Your task to perform on an android device: Open privacy settings Image 0: 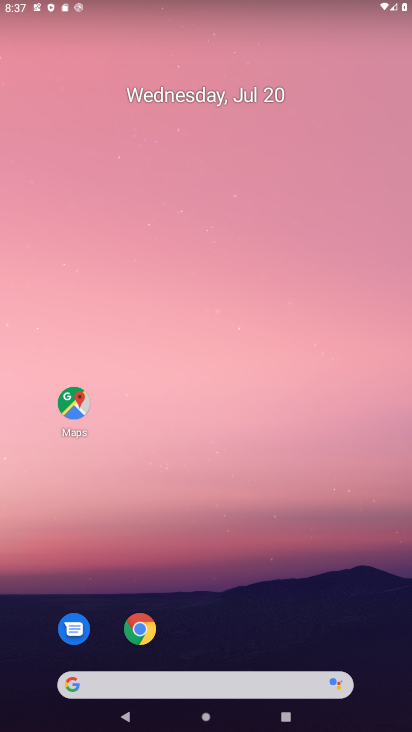
Step 0: click (234, 184)
Your task to perform on an android device: Open privacy settings Image 1: 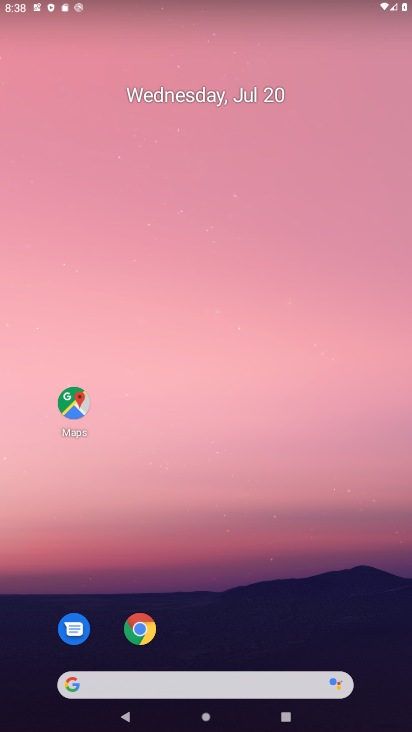
Step 1: drag from (234, 670) to (208, 217)
Your task to perform on an android device: Open privacy settings Image 2: 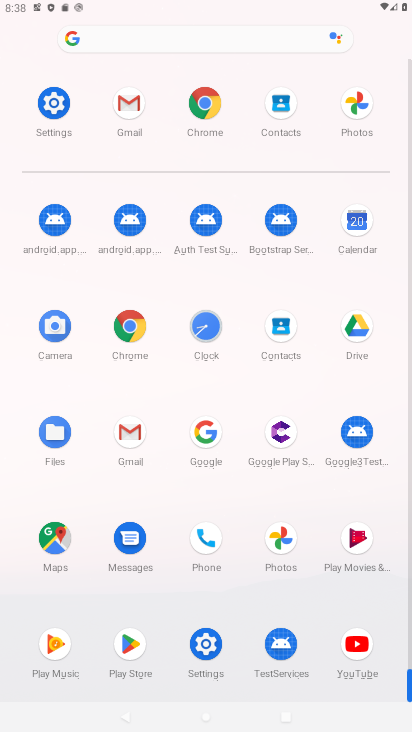
Step 2: click (58, 104)
Your task to perform on an android device: Open privacy settings Image 3: 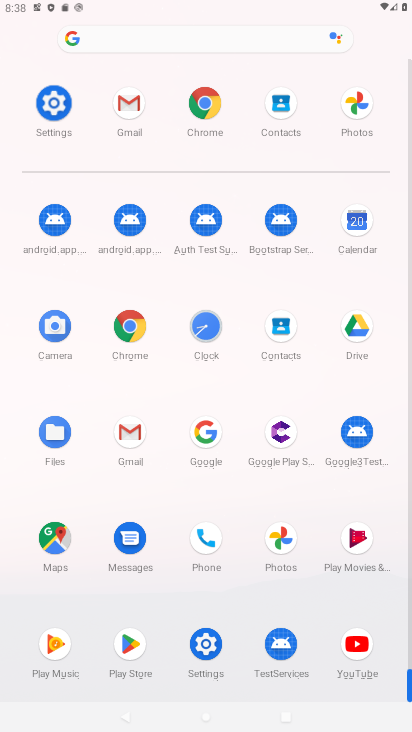
Step 3: click (59, 102)
Your task to perform on an android device: Open privacy settings Image 4: 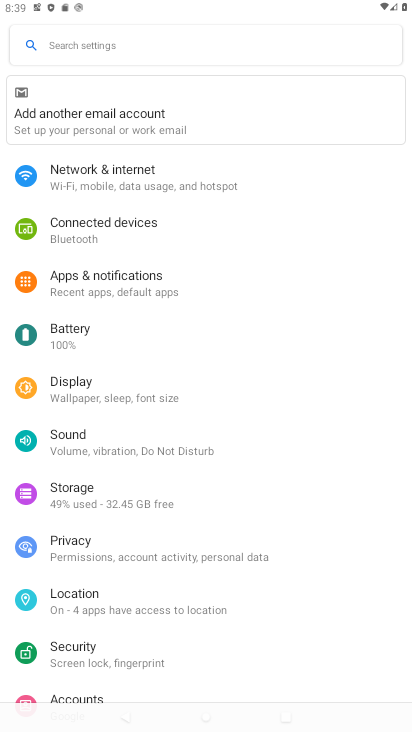
Step 4: drag from (114, 576) to (99, 343)
Your task to perform on an android device: Open privacy settings Image 5: 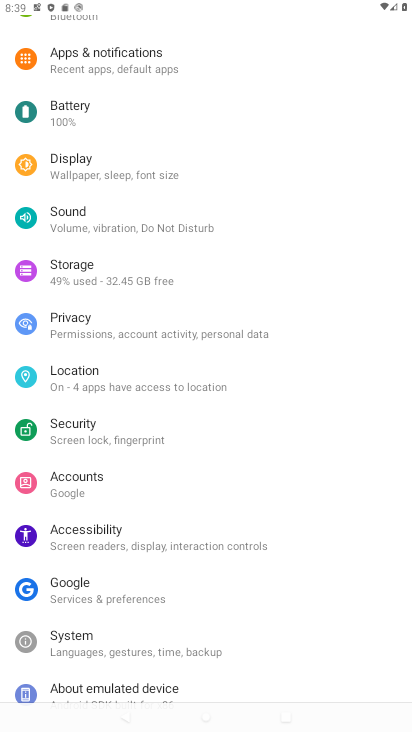
Step 5: drag from (115, 593) to (145, 392)
Your task to perform on an android device: Open privacy settings Image 6: 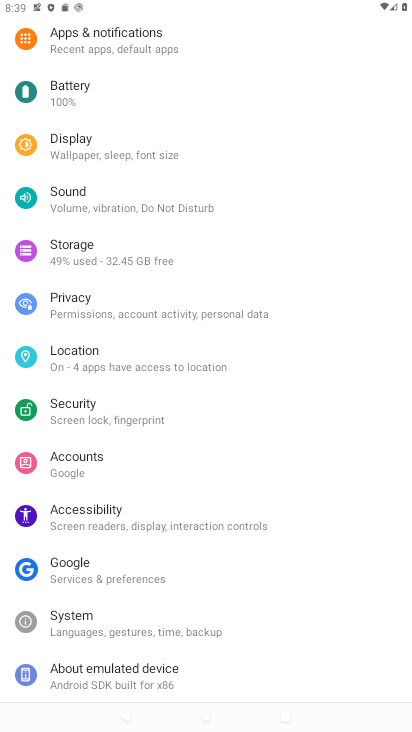
Step 6: click (76, 301)
Your task to perform on an android device: Open privacy settings Image 7: 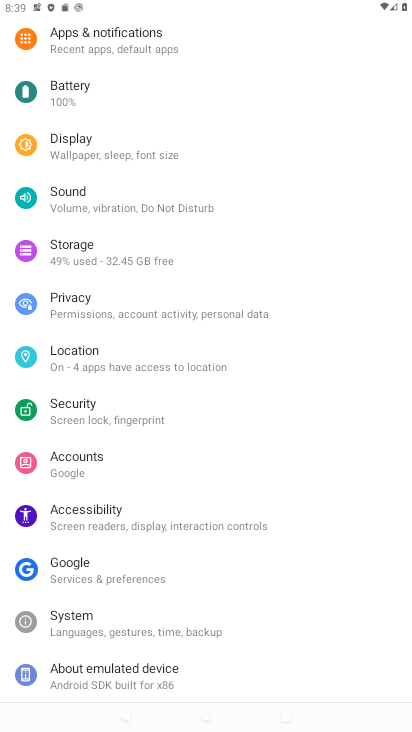
Step 7: click (76, 301)
Your task to perform on an android device: Open privacy settings Image 8: 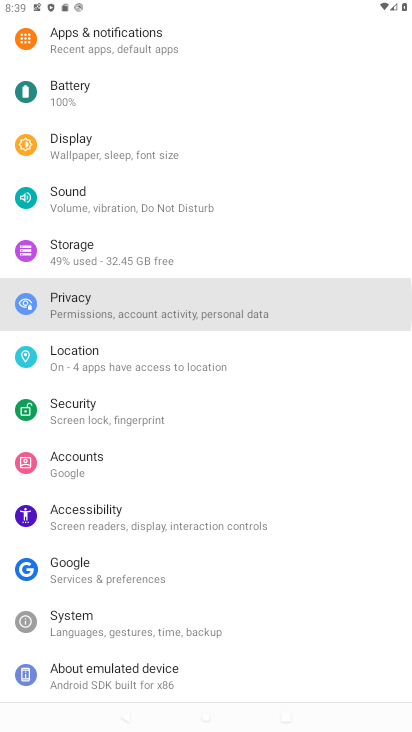
Step 8: click (76, 301)
Your task to perform on an android device: Open privacy settings Image 9: 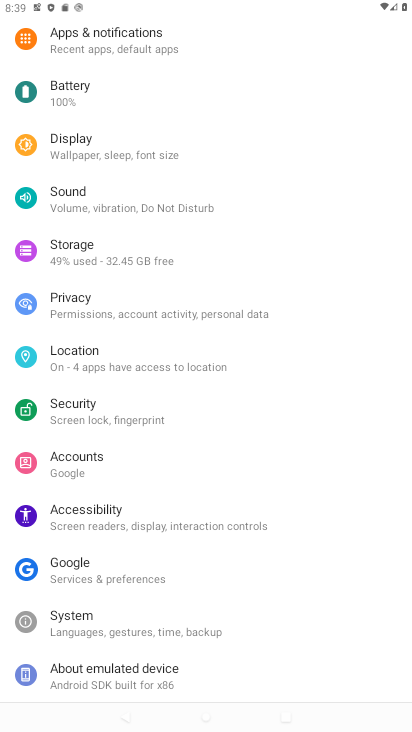
Step 9: click (76, 301)
Your task to perform on an android device: Open privacy settings Image 10: 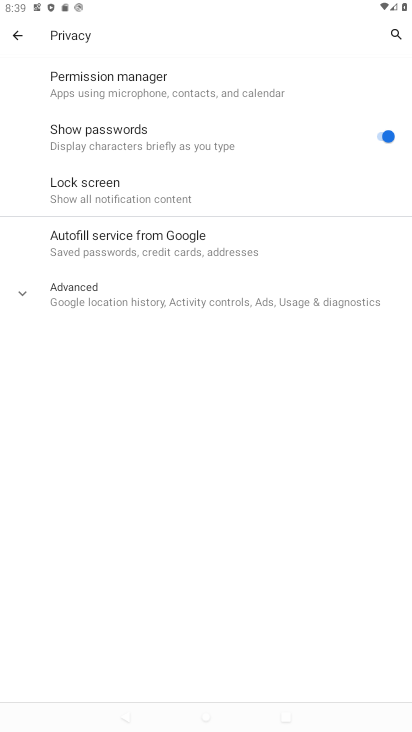
Step 10: task complete